Your task to perform on an android device: What is the news today? Image 0: 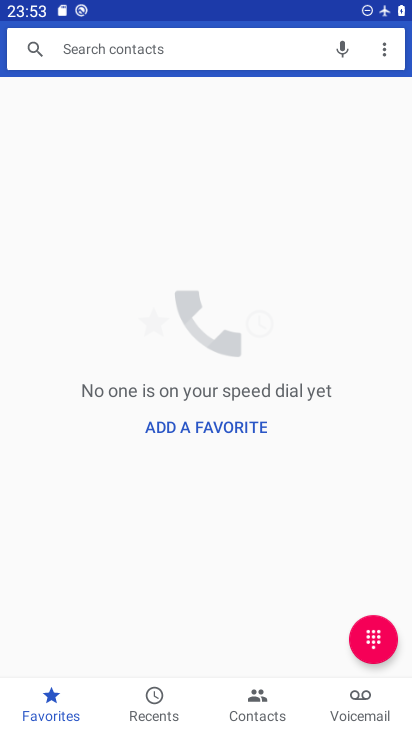
Step 0: press home button
Your task to perform on an android device: What is the news today? Image 1: 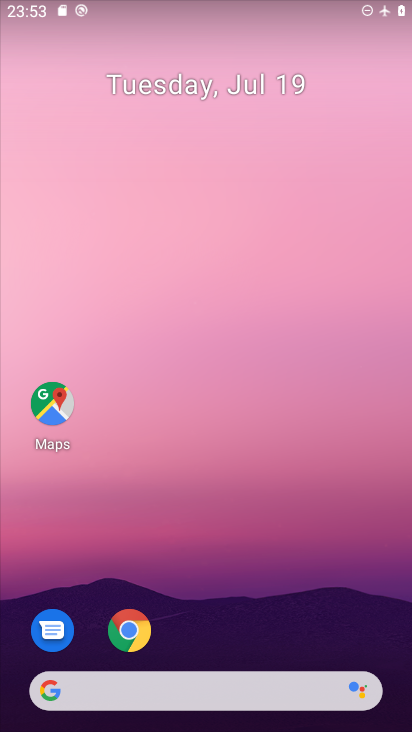
Step 1: drag from (206, 615) to (187, 265)
Your task to perform on an android device: What is the news today? Image 2: 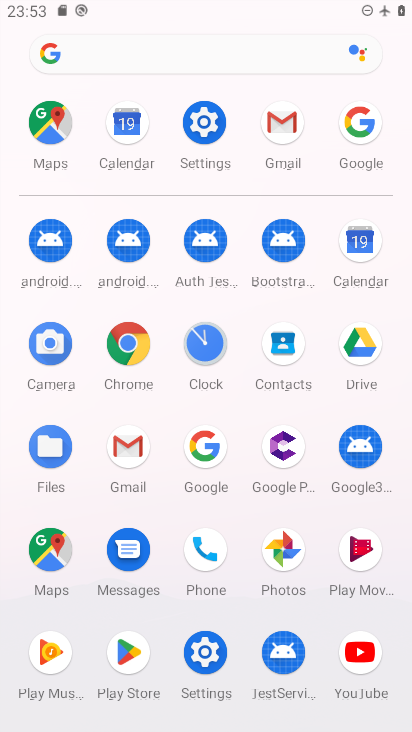
Step 2: click (192, 457)
Your task to perform on an android device: What is the news today? Image 3: 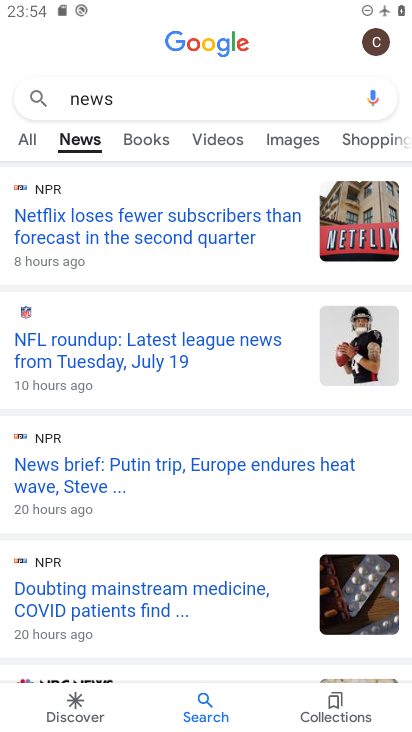
Step 3: task complete